Your task to perform on an android device: Open Google Image 0: 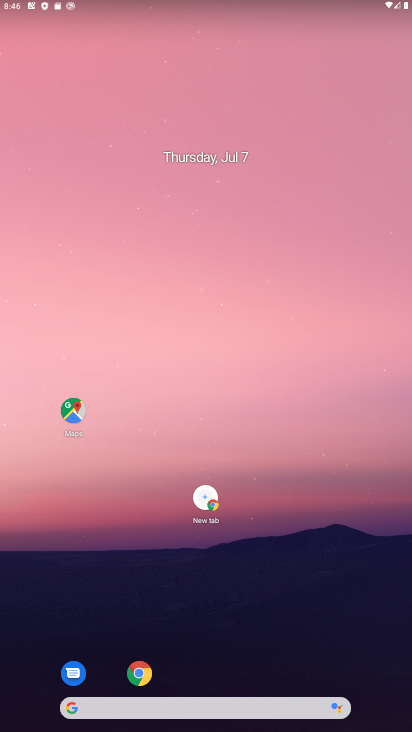
Step 0: press home button
Your task to perform on an android device: Open Google Image 1: 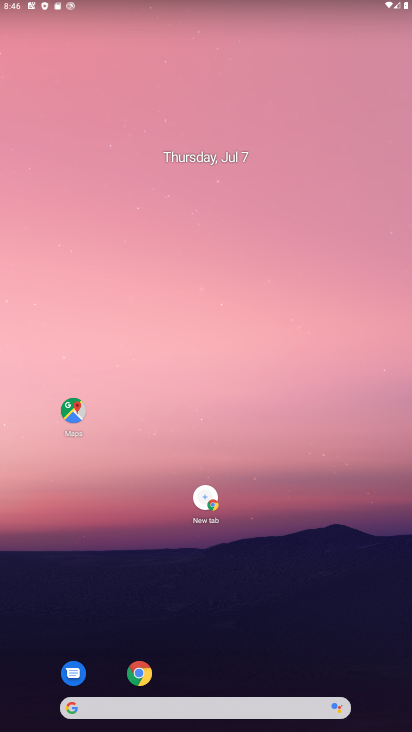
Step 1: click (70, 709)
Your task to perform on an android device: Open Google Image 2: 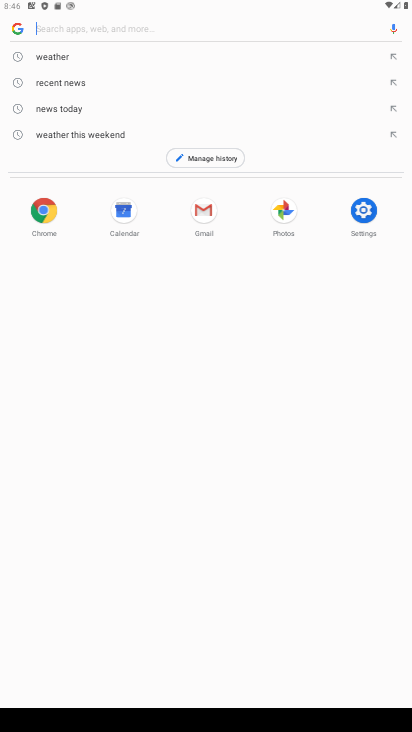
Step 2: task complete